Your task to perform on an android device: Show the shopping cart on newegg. Search for usb-a to usb-b on newegg, select the first entry, add it to the cart, then select checkout. Image 0: 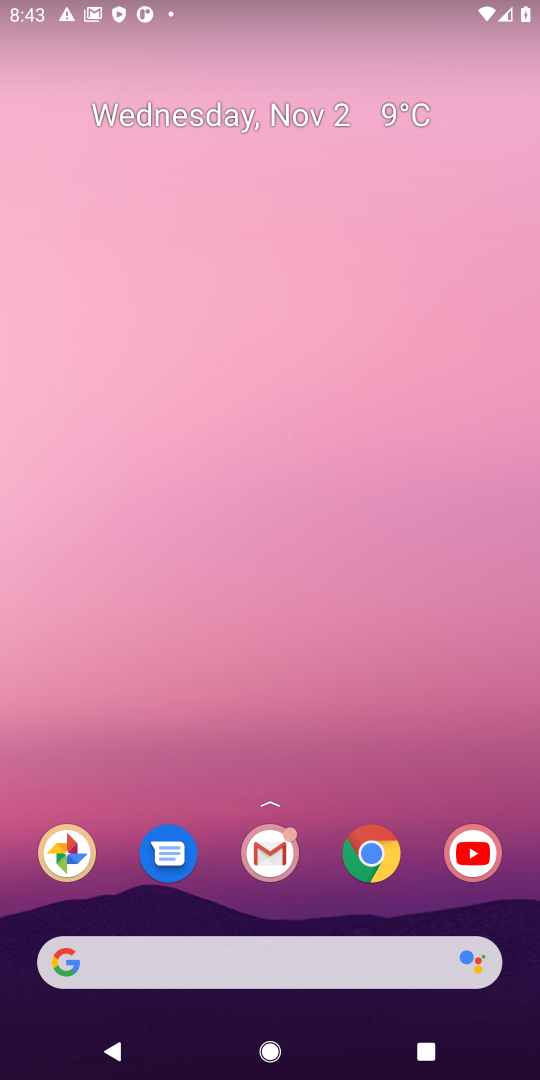
Step 0: click (367, 855)
Your task to perform on an android device: Show the shopping cart on newegg. Search for usb-a to usb-b on newegg, select the first entry, add it to the cart, then select checkout. Image 1: 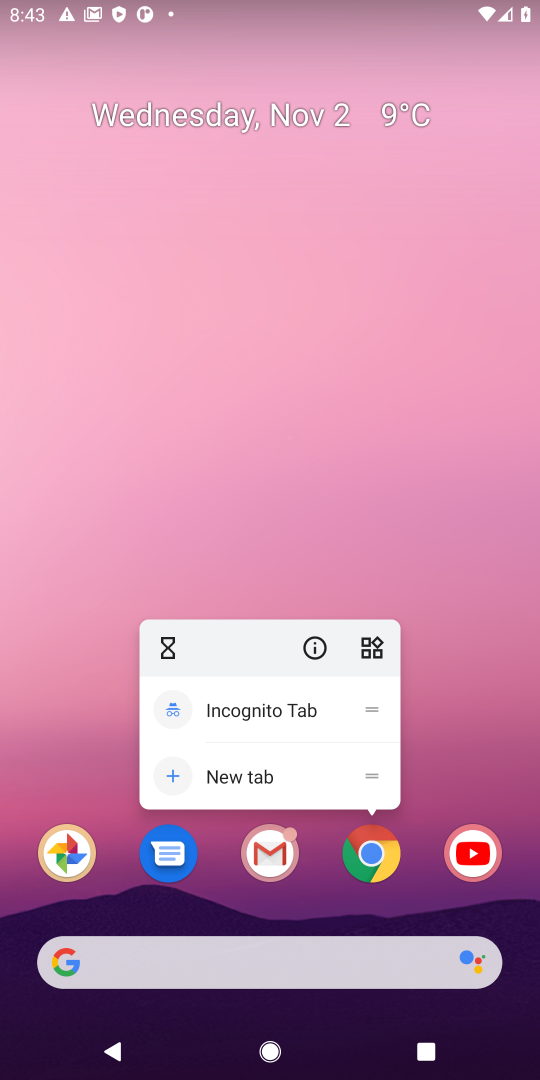
Step 1: click (367, 855)
Your task to perform on an android device: Show the shopping cart on newegg. Search for usb-a to usb-b on newegg, select the first entry, add it to the cart, then select checkout. Image 2: 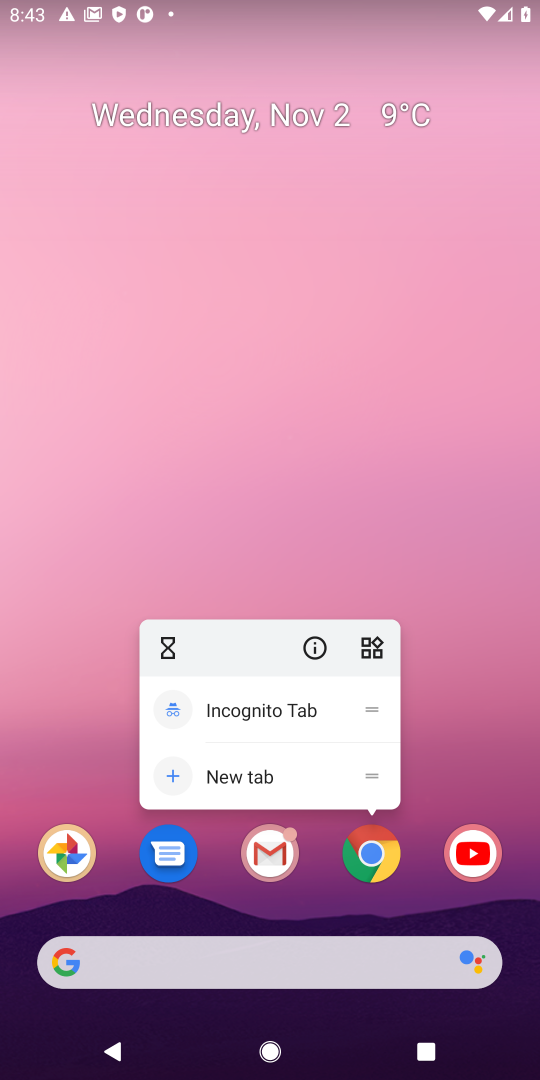
Step 2: click (367, 856)
Your task to perform on an android device: Show the shopping cart on newegg. Search for usb-a to usb-b on newegg, select the first entry, add it to the cart, then select checkout. Image 3: 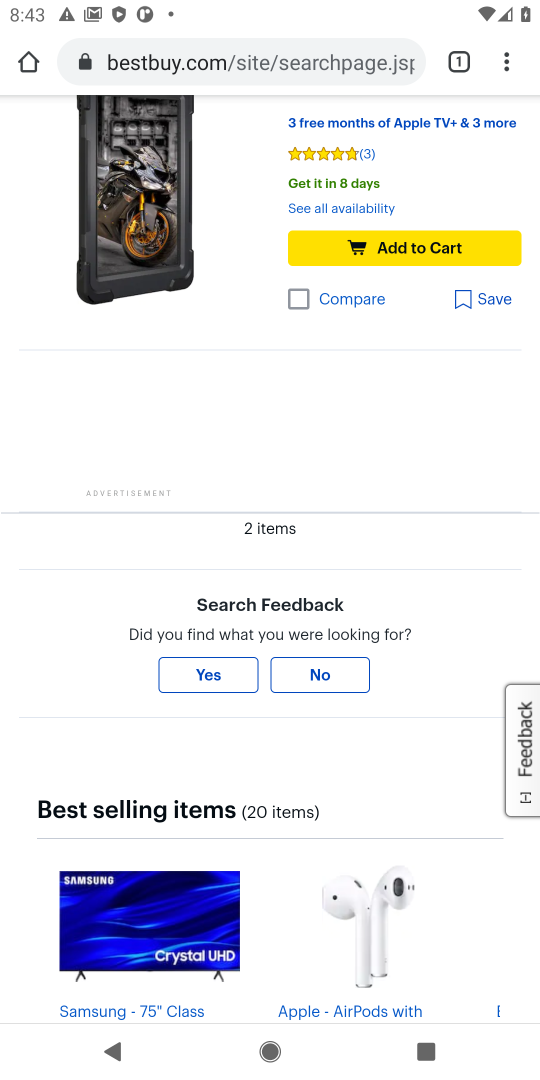
Step 3: click (380, 58)
Your task to perform on an android device: Show the shopping cart on newegg. Search for usb-a to usb-b on newegg, select the first entry, add it to the cart, then select checkout. Image 4: 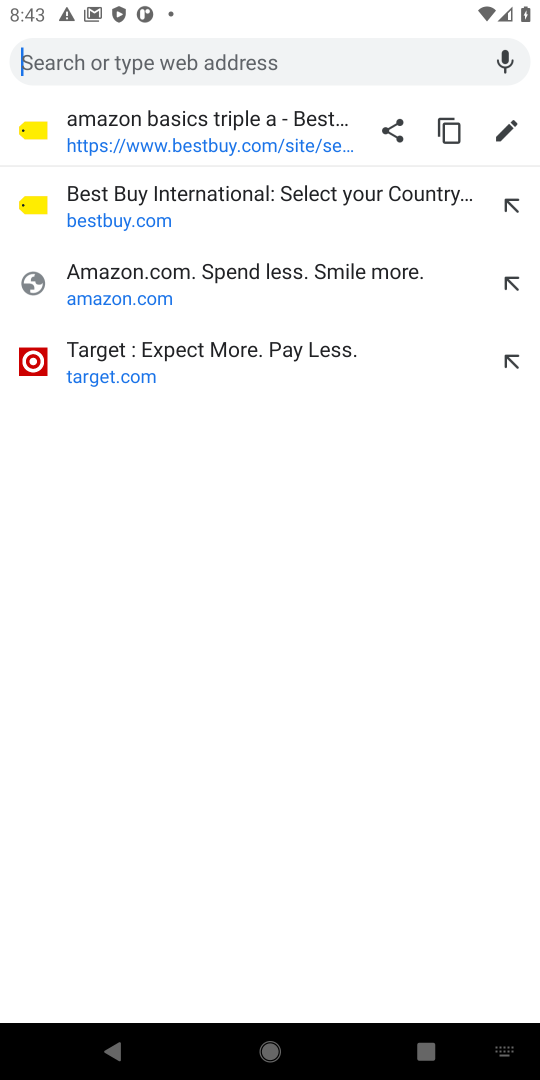
Step 4: type "newegg"
Your task to perform on an android device: Show the shopping cart on newegg. Search for usb-a to usb-b on newegg, select the first entry, add it to the cart, then select checkout. Image 5: 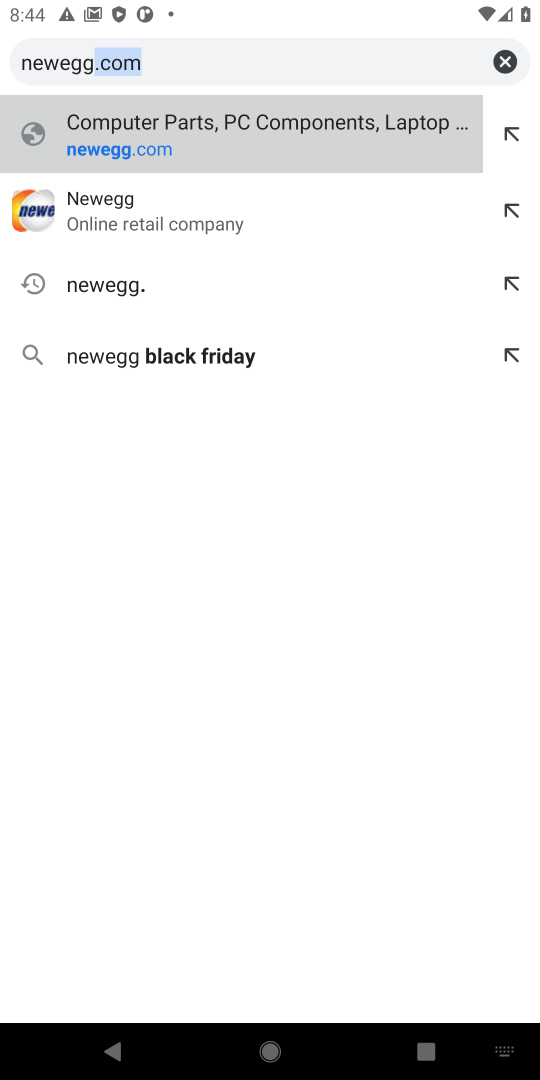
Step 5: press enter
Your task to perform on an android device: Show the shopping cart on newegg. Search for usb-a to usb-b on newegg, select the first entry, add it to the cart, then select checkout. Image 6: 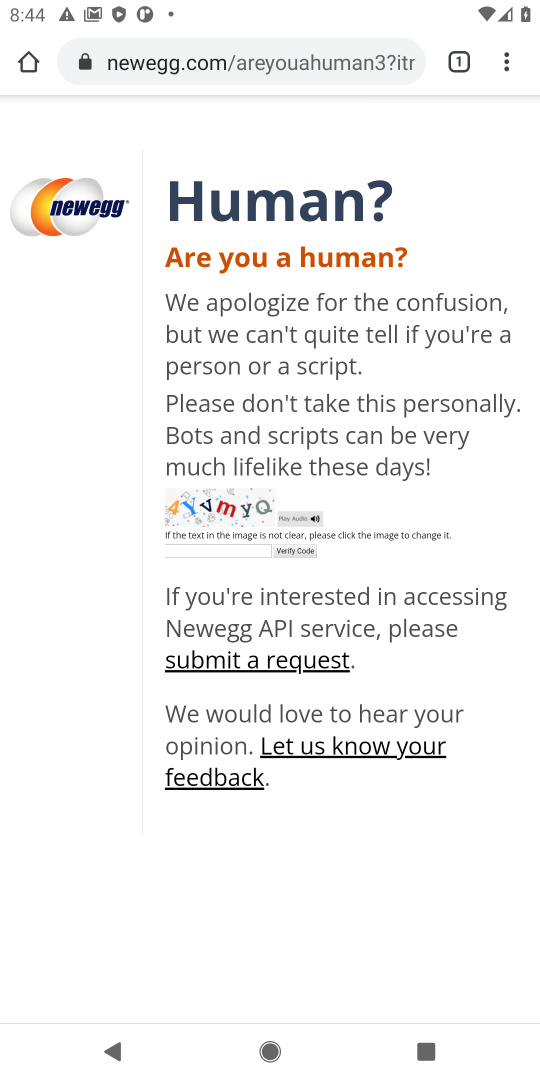
Step 6: click (209, 546)
Your task to perform on an android device: Show the shopping cart on newegg. Search for usb-a to usb-b on newegg, select the first entry, add it to the cart, then select checkout. Image 7: 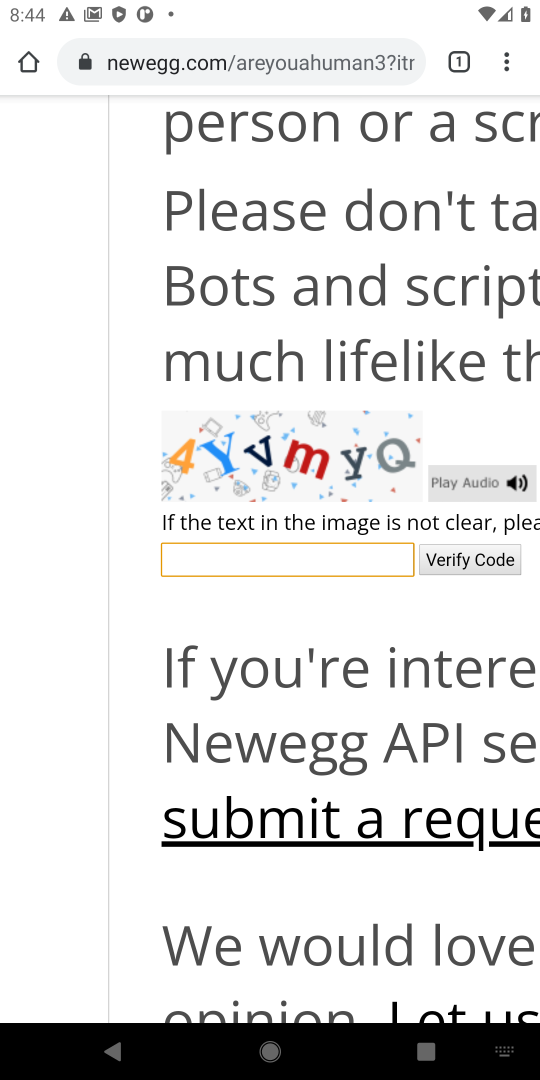
Step 7: type "4YVmyQ"
Your task to perform on an android device: Show the shopping cart on newegg. Search for usb-a to usb-b on newegg, select the first entry, add it to the cart, then select checkout. Image 8: 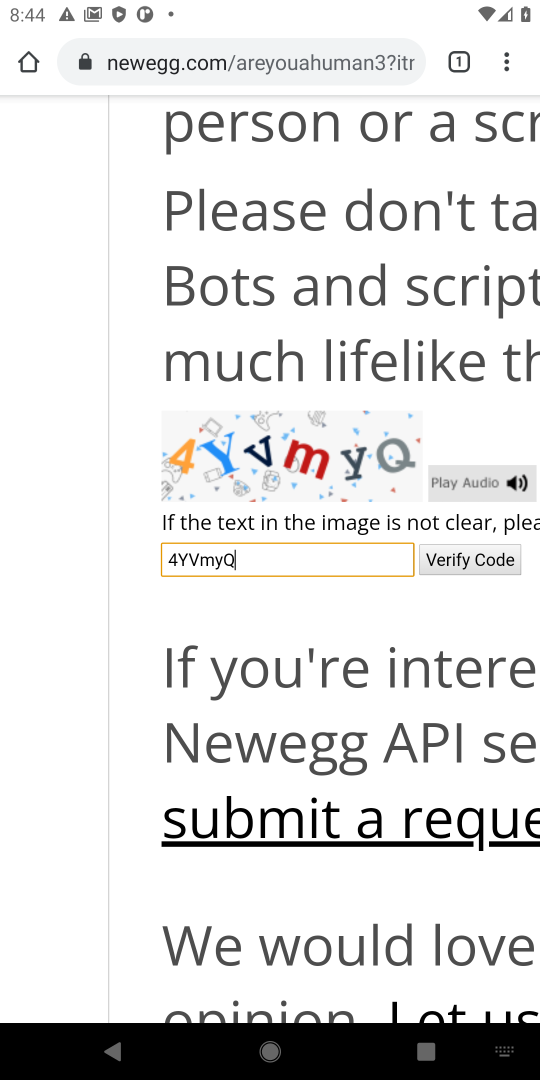
Step 8: press enter
Your task to perform on an android device: Show the shopping cart on newegg. Search for usb-a to usb-b on newegg, select the first entry, add it to the cart, then select checkout. Image 9: 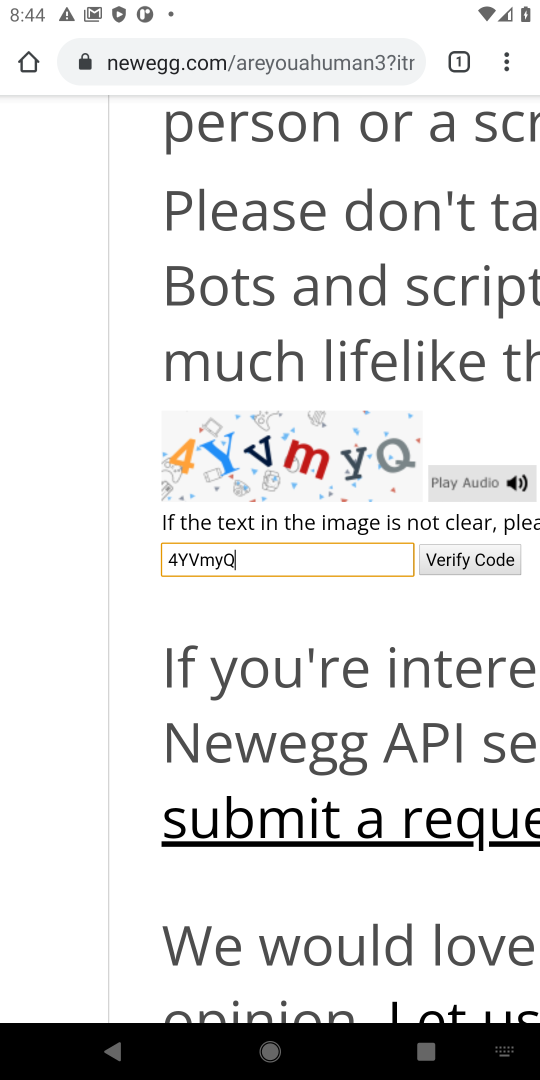
Step 9: click (467, 556)
Your task to perform on an android device: Show the shopping cart on newegg. Search for usb-a to usb-b on newegg, select the first entry, add it to the cart, then select checkout. Image 10: 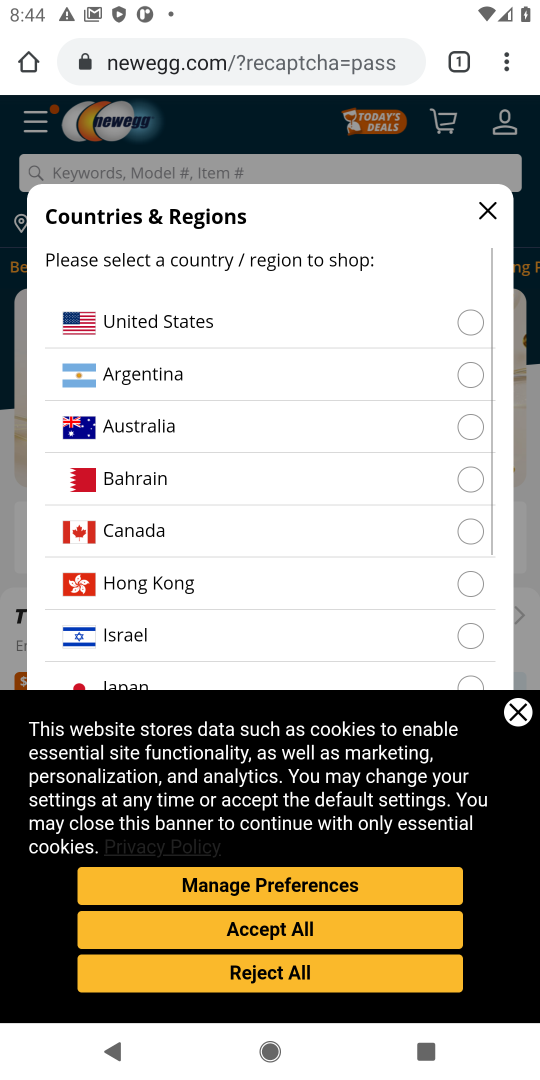
Step 10: click (490, 207)
Your task to perform on an android device: Show the shopping cart on newegg. Search for usb-a to usb-b on newegg, select the first entry, add it to the cart, then select checkout. Image 11: 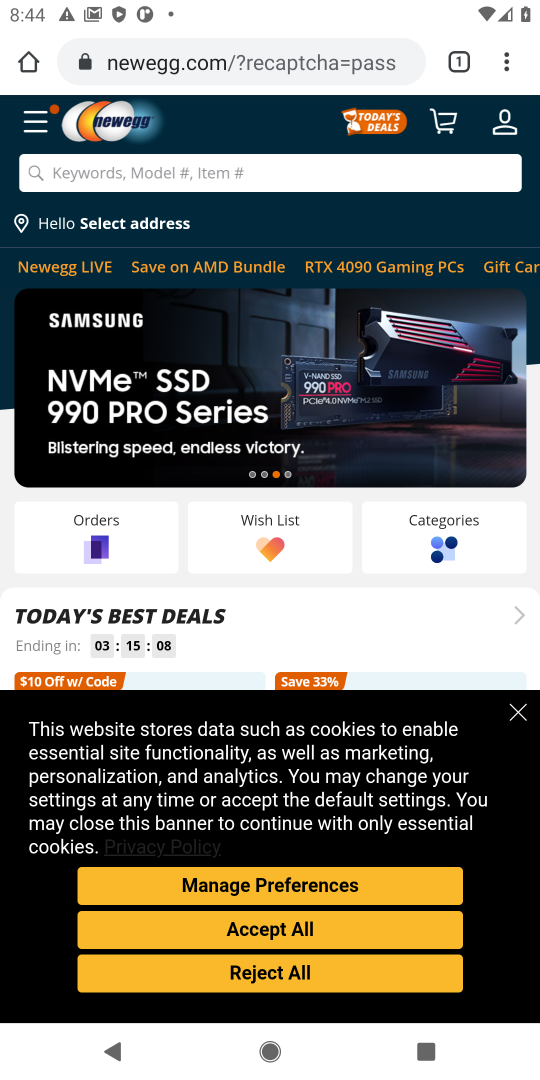
Step 11: click (523, 719)
Your task to perform on an android device: Show the shopping cart on newegg. Search for usb-a to usb-b on newegg, select the first entry, add it to the cart, then select checkout. Image 12: 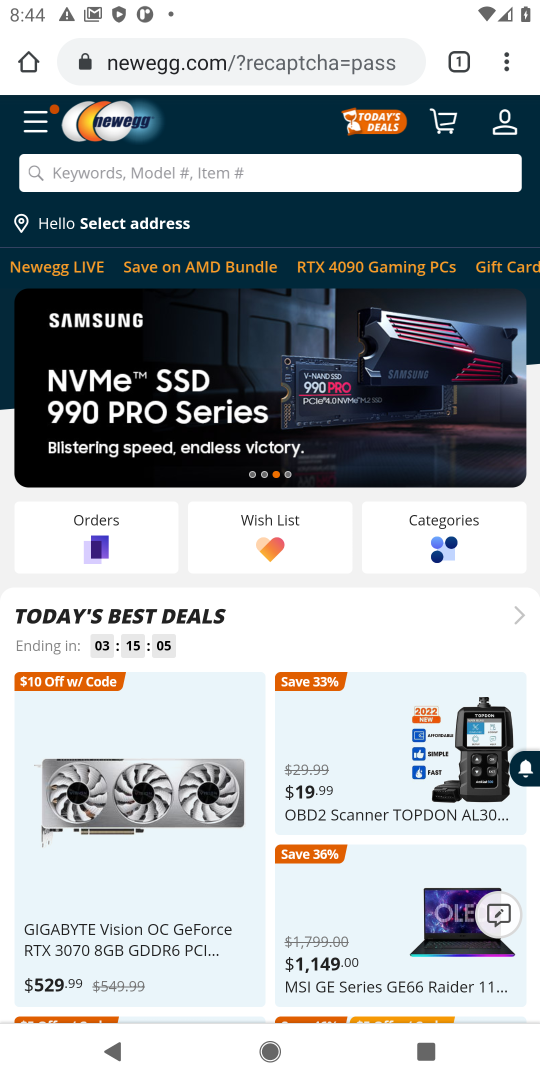
Step 12: click (239, 168)
Your task to perform on an android device: Show the shopping cart on newegg. Search for usb-a to usb-b on newegg, select the first entry, add it to the cart, then select checkout. Image 13: 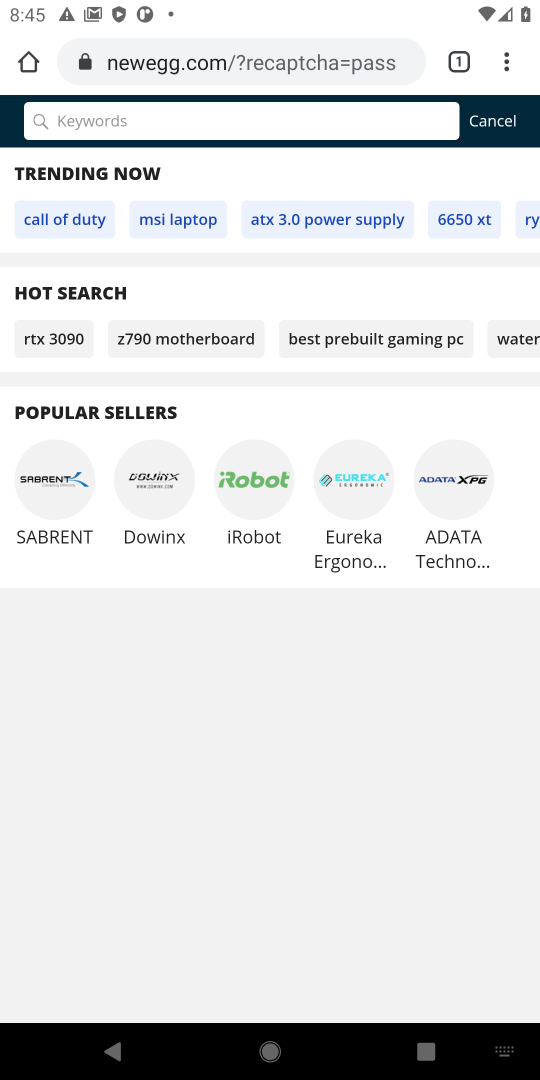
Step 13: type "usb-a to usb-b"
Your task to perform on an android device: Show the shopping cart on newegg. Search for usb-a to usb-b on newegg, select the first entry, add it to the cart, then select checkout. Image 14: 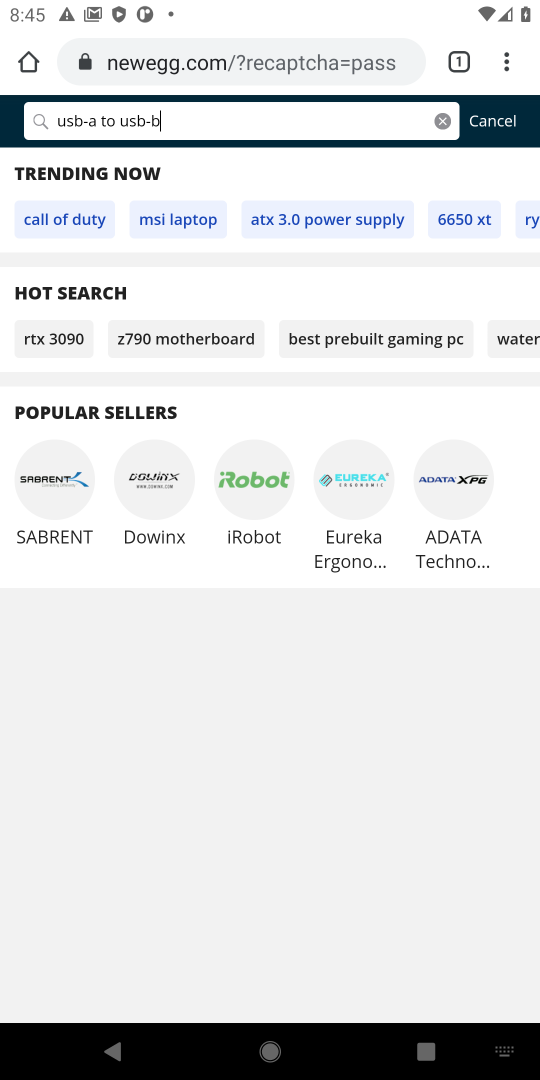
Step 14: press enter
Your task to perform on an android device: Show the shopping cart on newegg. Search for usb-a to usb-b on newegg, select the first entry, add it to the cart, then select checkout. Image 15: 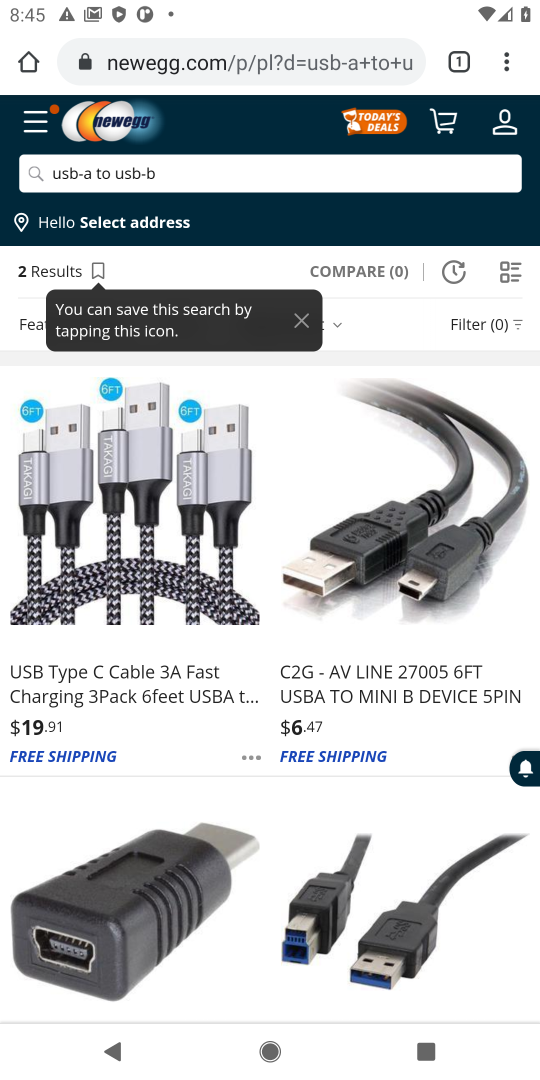
Step 15: task complete